Your task to perform on an android device: check the backup settings in the google photos Image 0: 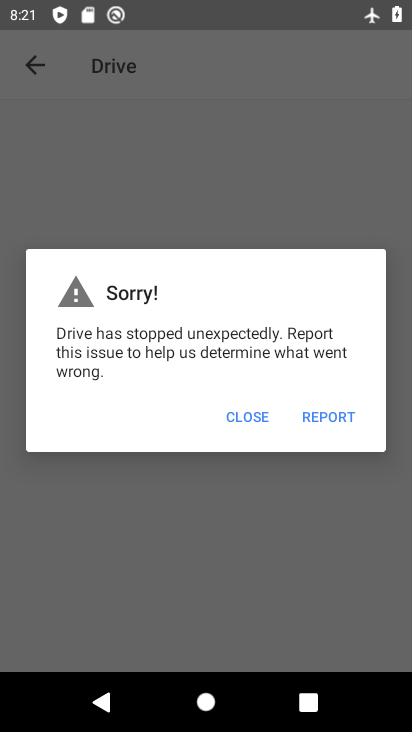
Step 0: press home button
Your task to perform on an android device: check the backup settings in the google photos Image 1: 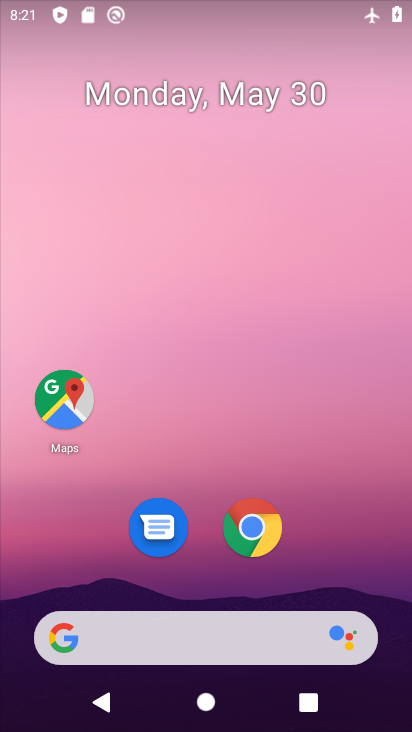
Step 1: drag from (320, 579) to (319, 2)
Your task to perform on an android device: check the backup settings in the google photos Image 2: 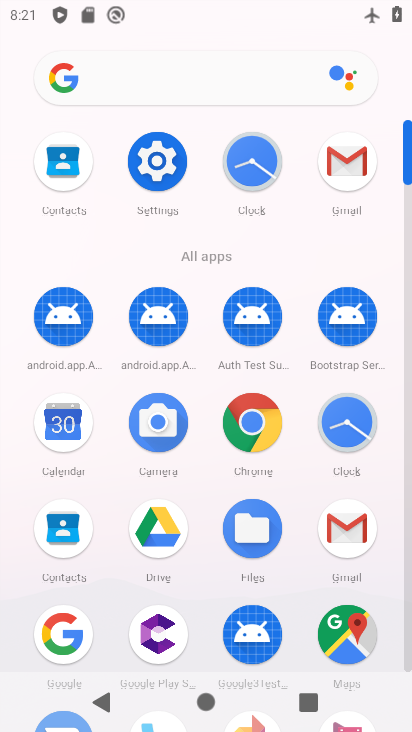
Step 2: drag from (198, 618) to (180, 176)
Your task to perform on an android device: check the backup settings in the google photos Image 3: 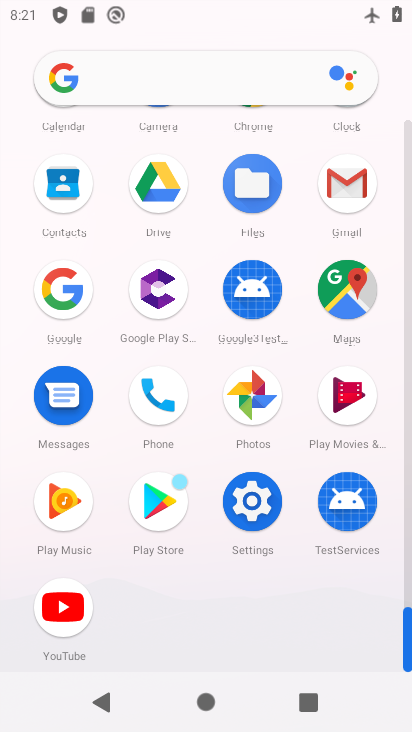
Step 3: click (254, 392)
Your task to perform on an android device: check the backup settings in the google photos Image 4: 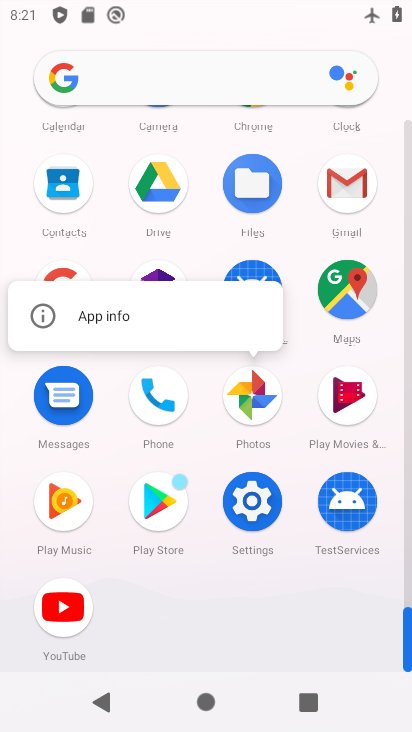
Step 4: click (258, 391)
Your task to perform on an android device: check the backup settings in the google photos Image 5: 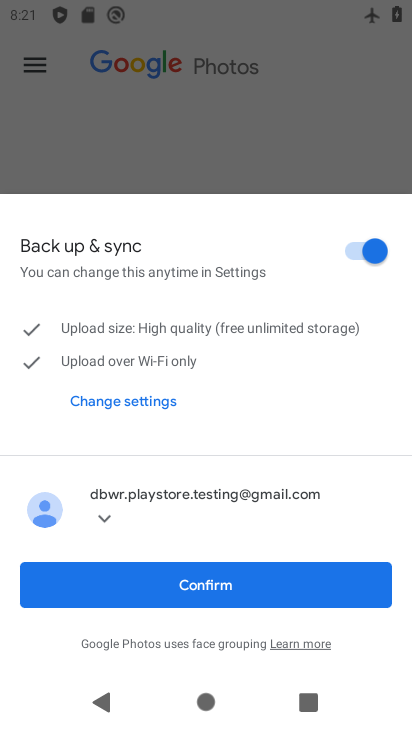
Step 5: click (294, 575)
Your task to perform on an android device: check the backup settings in the google photos Image 6: 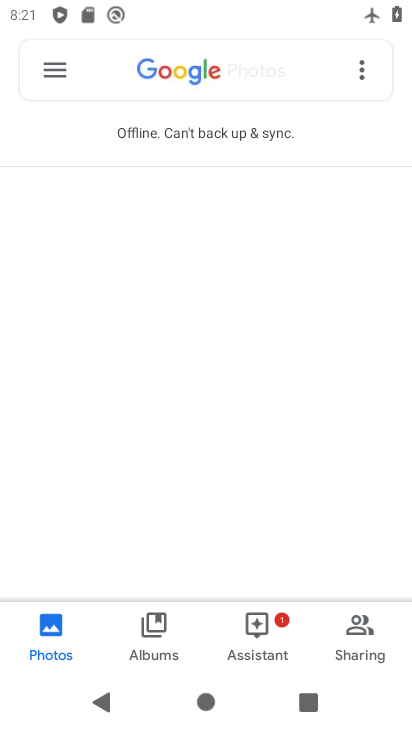
Step 6: click (56, 59)
Your task to perform on an android device: check the backup settings in the google photos Image 7: 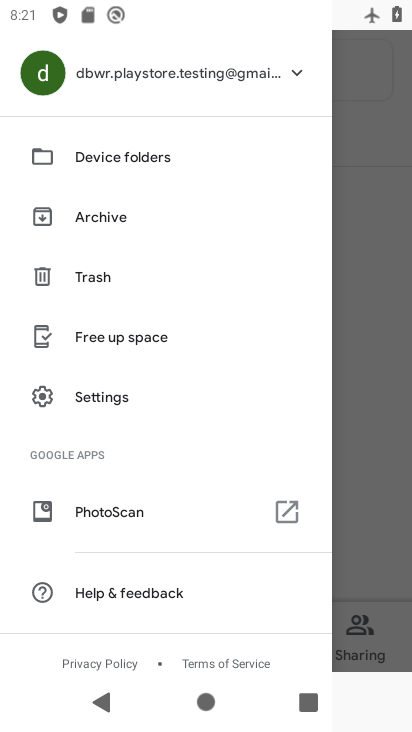
Step 7: click (117, 391)
Your task to perform on an android device: check the backup settings in the google photos Image 8: 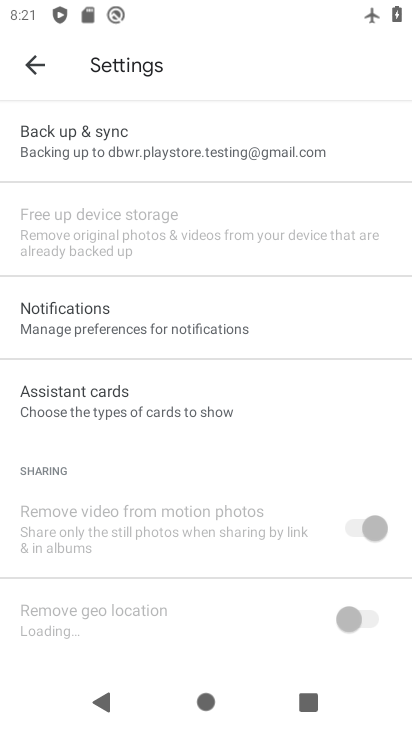
Step 8: click (134, 130)
Your task to perform on an android device: check the backup settings in the google photos Image 9: 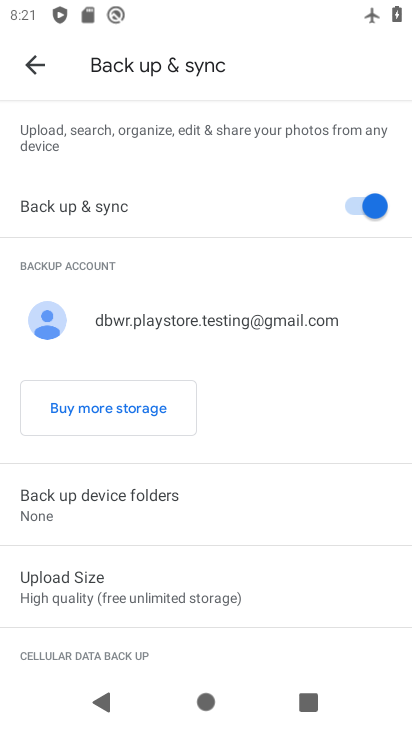
Step 9: task complete